Your task to perform on an android device: open app "Nova Launcher" Image 0: 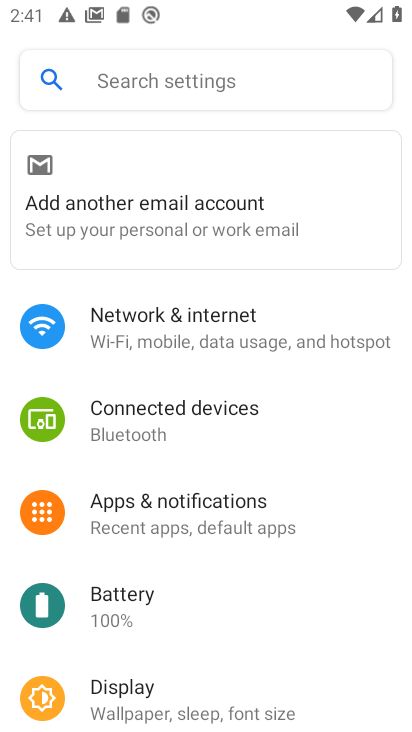
Step 0: press home button
Your task to perform on an android device: open app "Nova Launcher" Image 1: 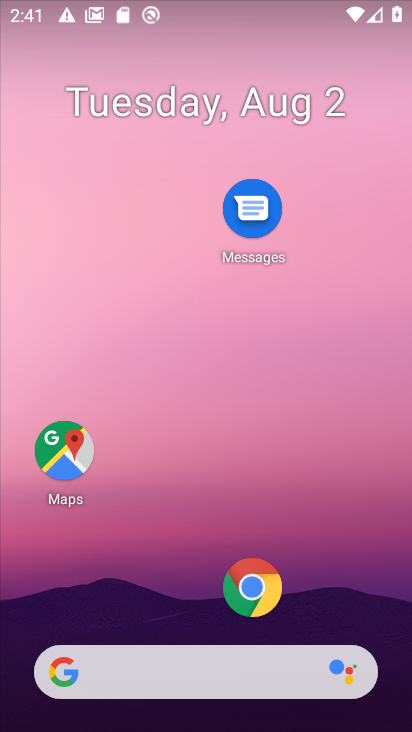
Step 1: drag from (153, 585) to (153, 238)
Your task to perform on an android device: open app "Nova Launcher" Image 2: 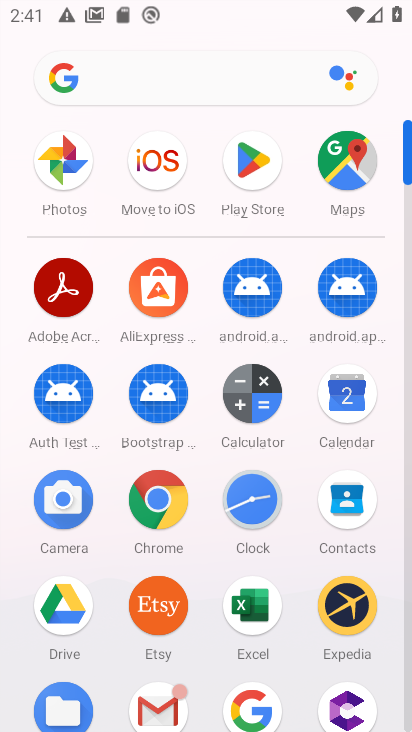
Step 2: click (246, 173)
Your task to perform on an android device: open app "Nova Launcher" Image 3: 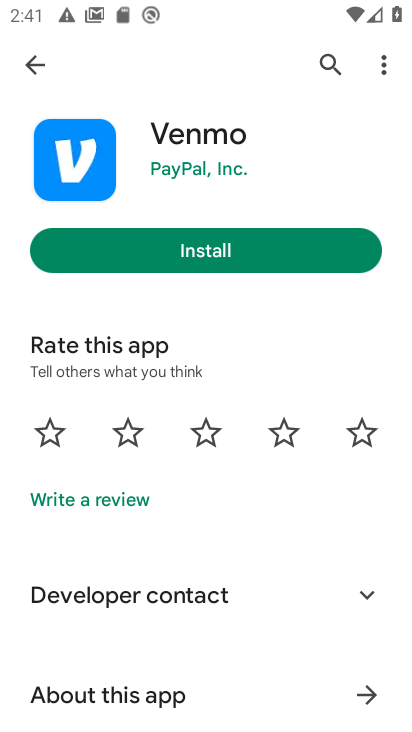
Step 3: click (327, 58)
Your task to perform on an android device: open app "Nova Launcher" Image 4: 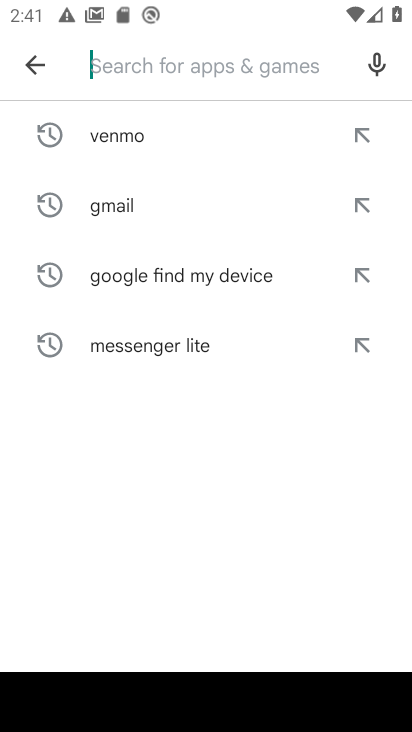
Step 4: type "Nova Launcher"
Your task to perform on an android device: open app "Nova Launcher" Image 5: 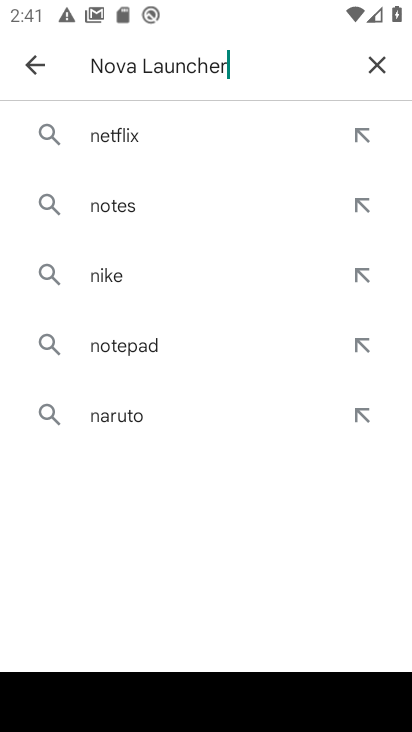
Step 5: type ""
Your task to perform on an android device: open app "Nova Launcher" Image 6: 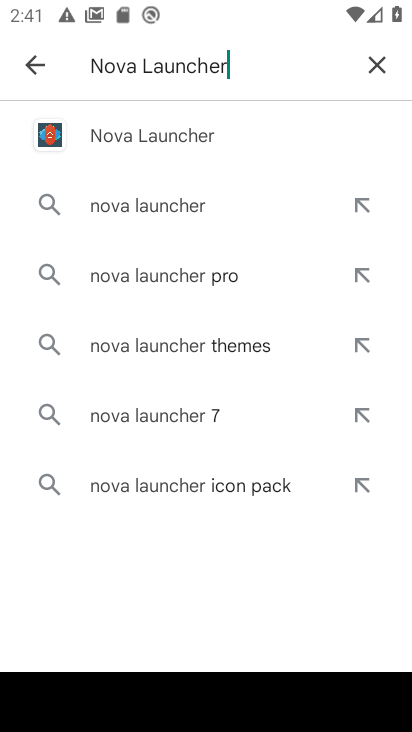
Step 6: click (192, 138)
Your task to perform on an android device: open app "Nova Launcher" Image 7: 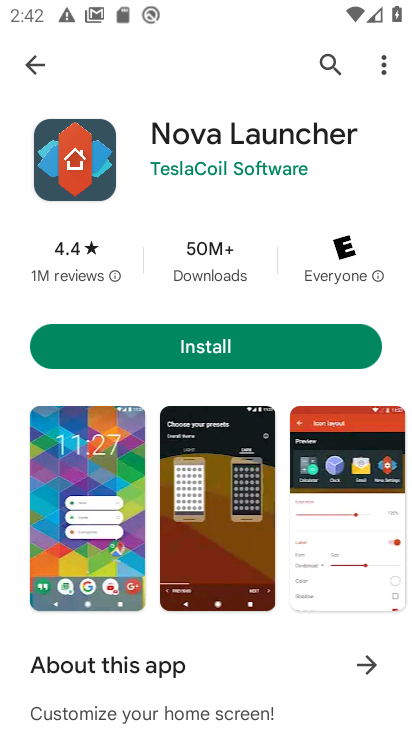
Step 7: task complete